Your task to perform on an android device: turn on priority inbox in the gmail app Image 0: 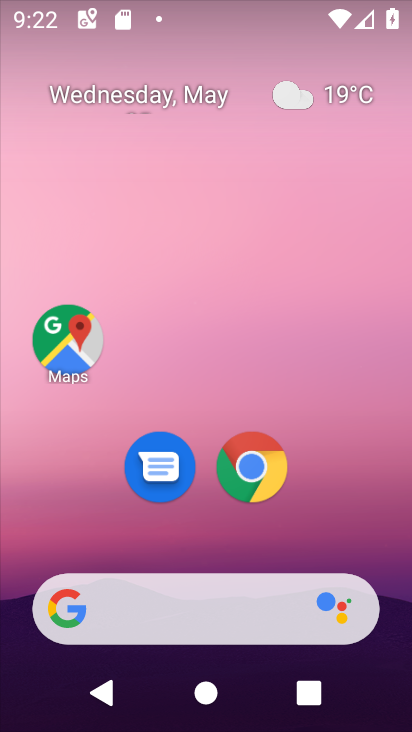
Step 0: drag from (362, 553) to (237, 128)
Your task to perform on an android device: turn on priority inbox in the gmail app Image 1: 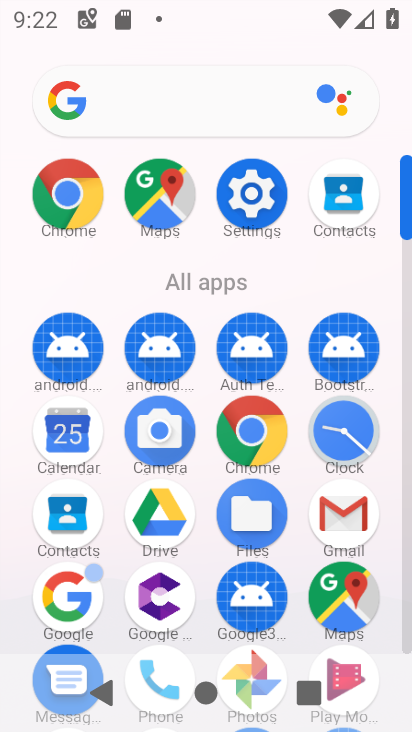
Step 1: click (334, 513)
Your task to perform on an android device: turn on priority inbox in the gmail app Image 2: 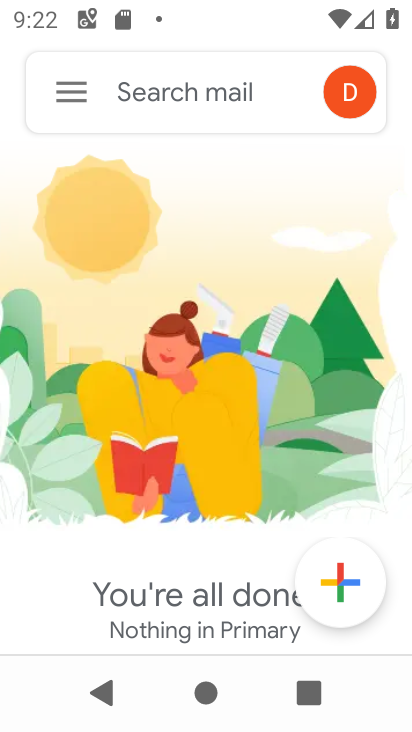
Step 2: click (79, 93)
Your task to perform on an android device: turn on priority inbox in the gmail app Image 3: 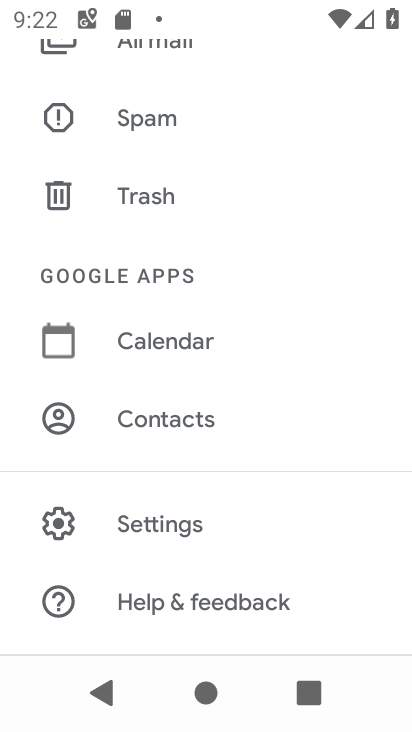
Step 3: click (145, 515)
Your task to perform on an android device: turn on priority inbox in the gmail app Image 4: 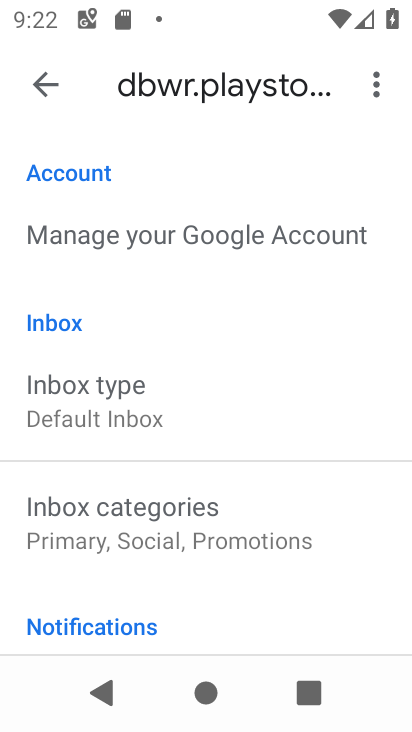
Step 4: click (85, 384)
Your task to perform on an android device: turn on priority inbox in the gmail app Image 5: 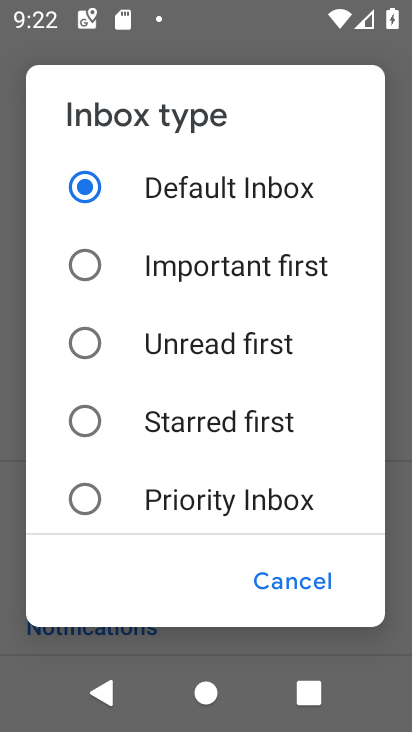
Step 5: task complete